Your task to perform on an android device: create a new album in the google photos Image 0: 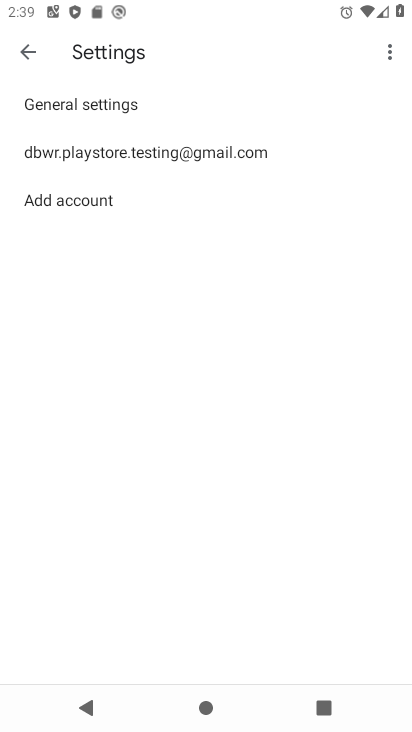
Step 0: press home button
Your task to perform on an android device: create a new album in the google photos Image 1: 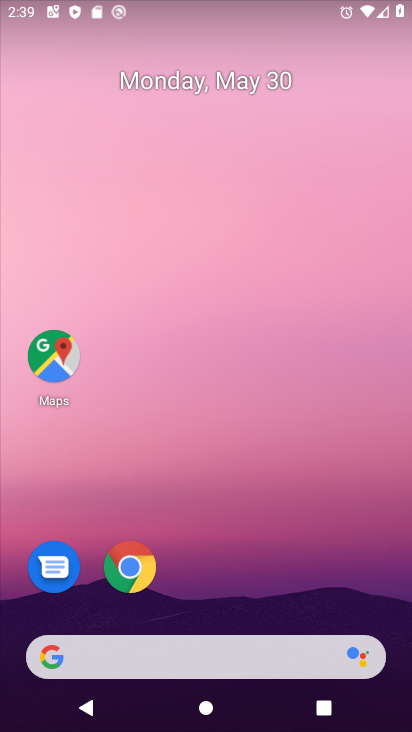
Step 1: drag from (300, 609) to (201, 19)
Your task to perform on an android device: create a new album in the google photos Image 2: 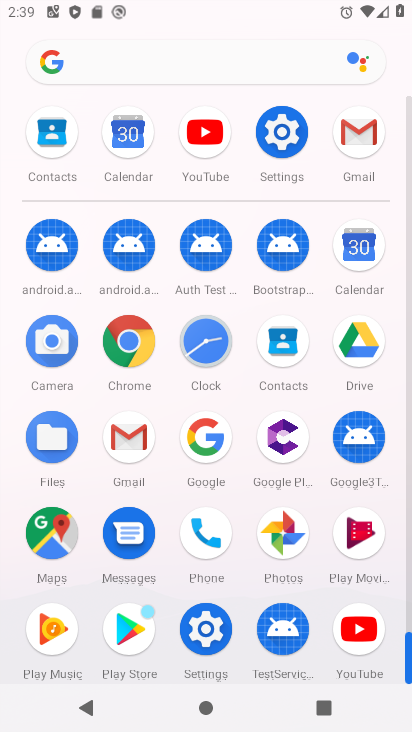
Step 2: click (284, 550)
Your task to perform on an android device: create a new album in the google photos Image 3: 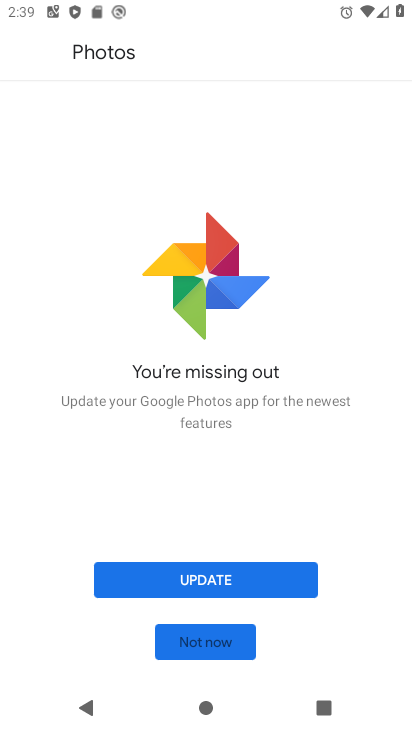
Step 3: click (221, 642)
Your task to perform on an android device: create a new album in the google photos Image 4: 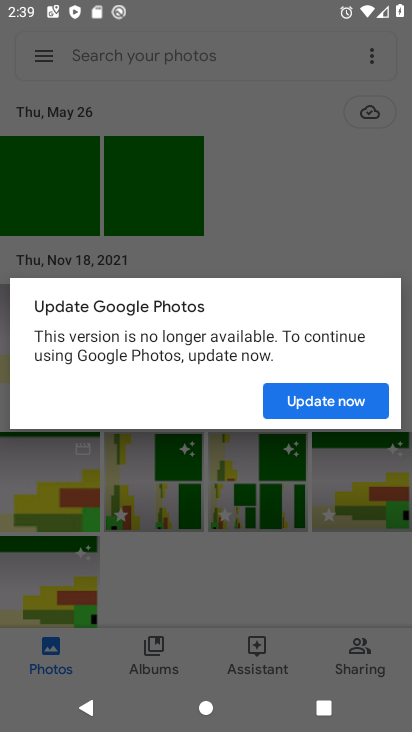
Step 4: click (327, 403)
Your task to perform on an android device: create a new album in the google photos Image 5: 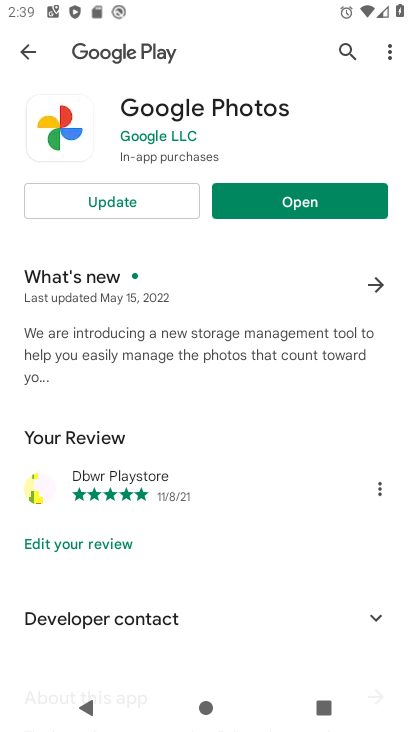
Step 5: click (302, 207)
Your task to perform on an android device: create a new album in the google photos Image 6: 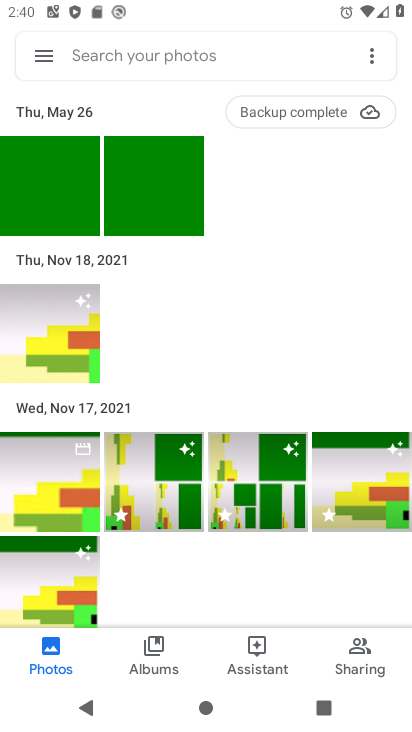
Step 6: click (152, 658)
Your task to perform on an android device: create a new album in the google photos Image 7: 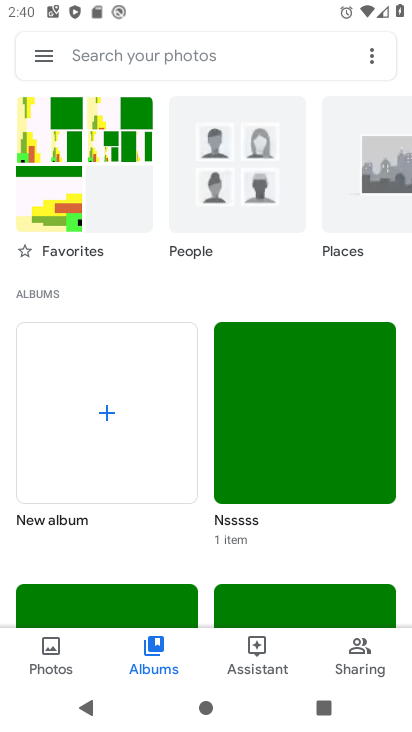
Step 7: click (100, 409)
Your task to perform on an android device: create a new album in the google photos Image 8: 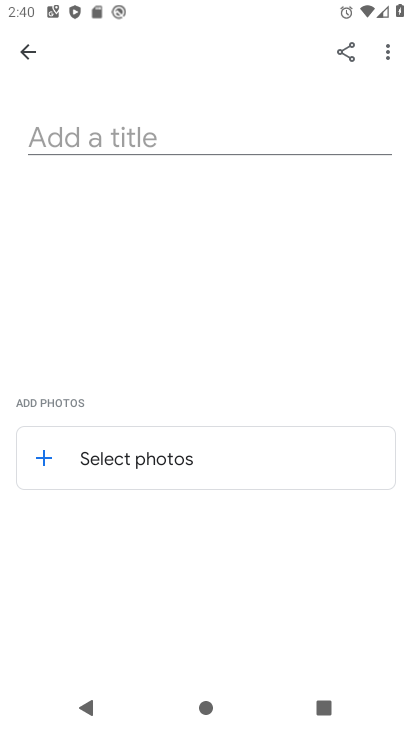
Step 8: click (106, 150)
Your task to perform on an android device: create a new album in the google photos Image 9: 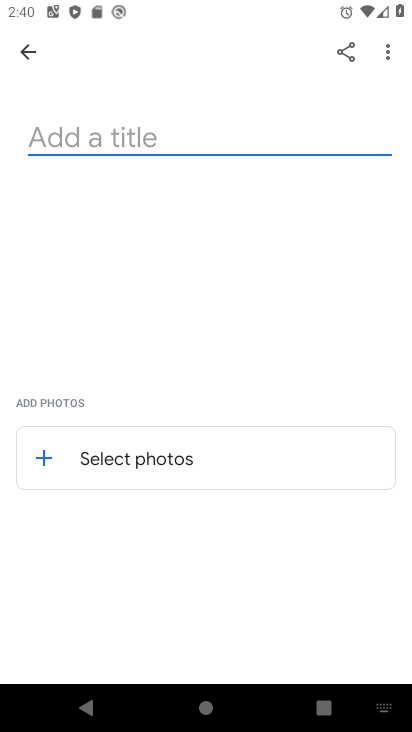
Step 9: type "apron"
Your task to perform on an android device: create a new album in the google photos Image 10: 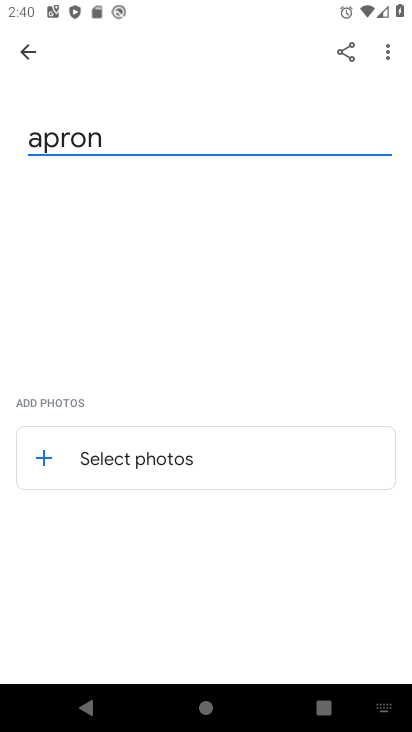
Step 10: click (52, 460)
Your task to perform on an android device: create a new album in the google photos Image 11: 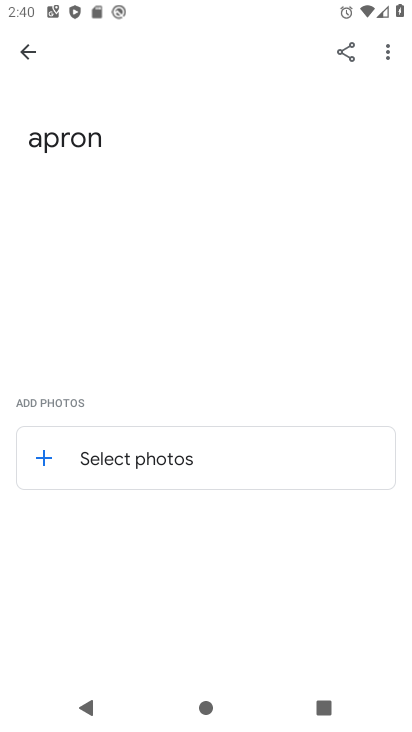
Step 11: click (50, 460)
Your task to perform on an android device: create a new album in the google photos Image 12: 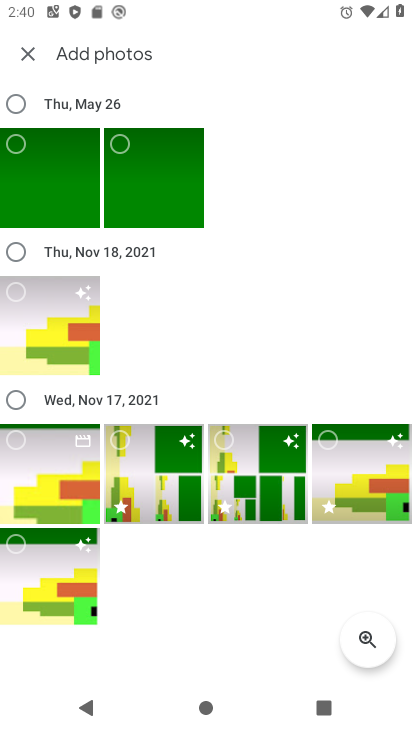
Step 12: click (8, 178)
Your task to perform on an android device: create a new album in the google photos Image 13: 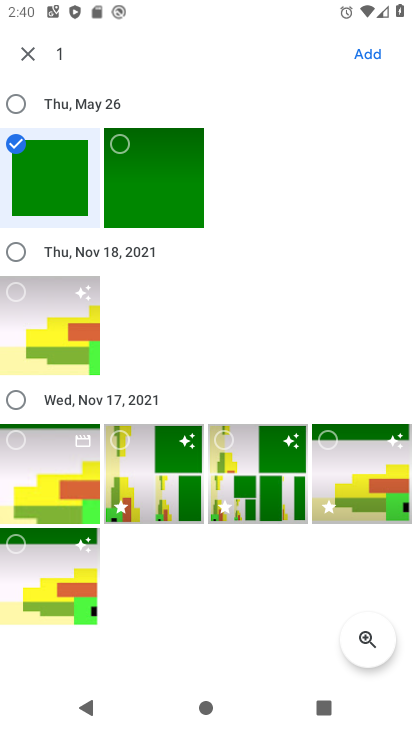
Step 13: click (70, 333)
Your task to perform on an android device: create a new album in the google photos Image 14: 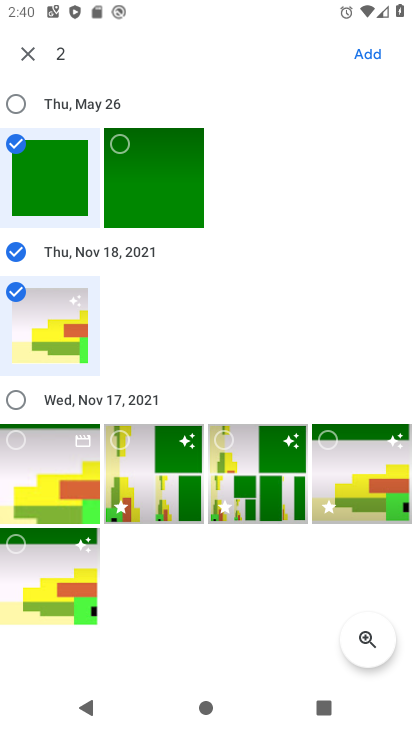
Step 14: click (37, 460)
Your task to perform on an android device: create a new album in the google photos Image 15: 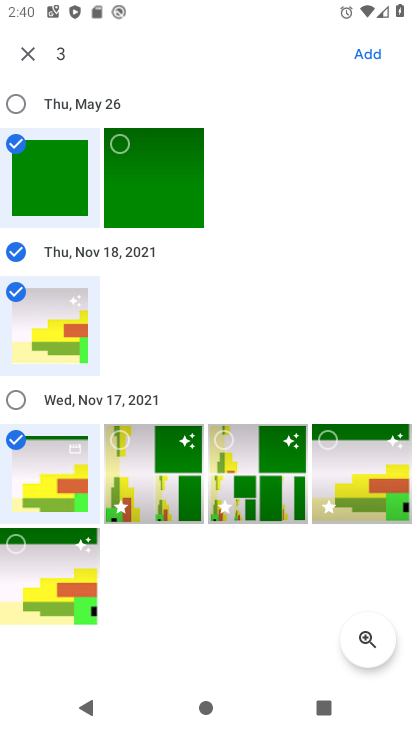
Step 15: click (128, 196)
Your task to perform on an android device: create a new album in the google photos Image 16: 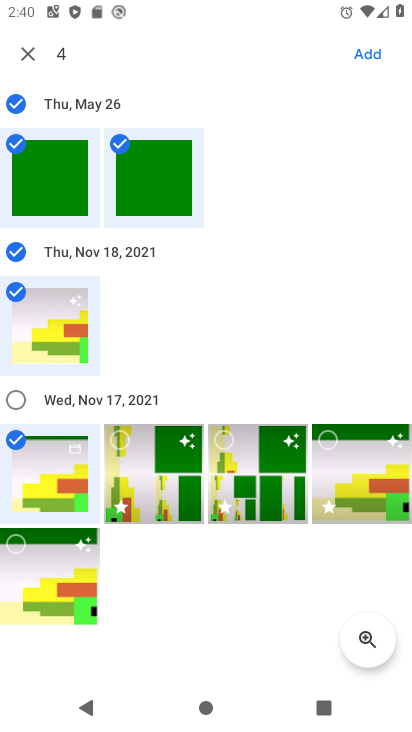
Step 16: click (370, 53)
Your task to perform on an android device: create a new album in the google photos Image 17: 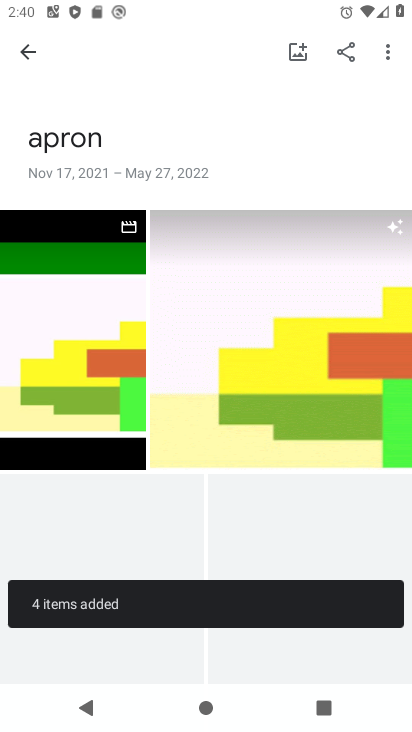
Step 17: task complete